Your task to perform on an android device: see tabs open on other devices in the chrome app Image 0: 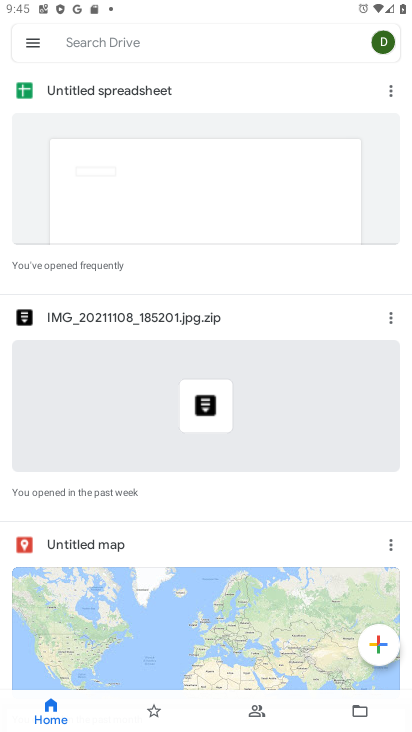
Step 0: press home button
Your task to perform on an android device: see tabs open on other devices in the chrome app Image 1: 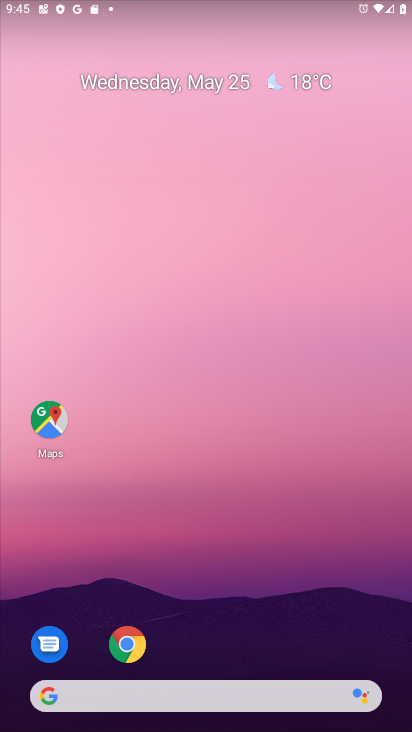
Step 1: click (128, 637)
Your task to perform on an android device: see tabs open on other devices in the chrome app Image 2: 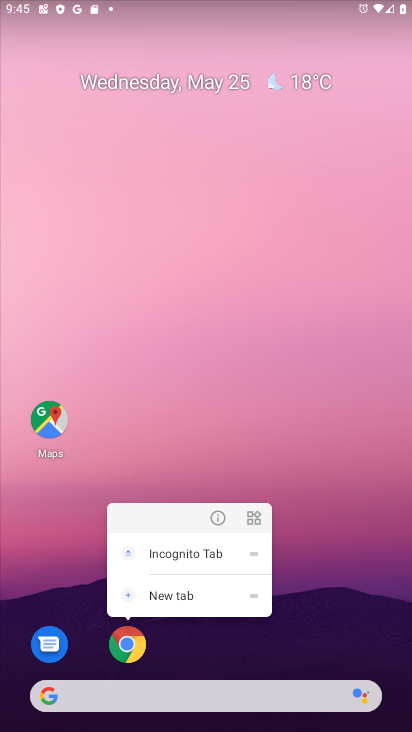
Step 2: click (128, 637)
Your task to perform on an android device: see tabs open on other devices in the chrome app Image 3: 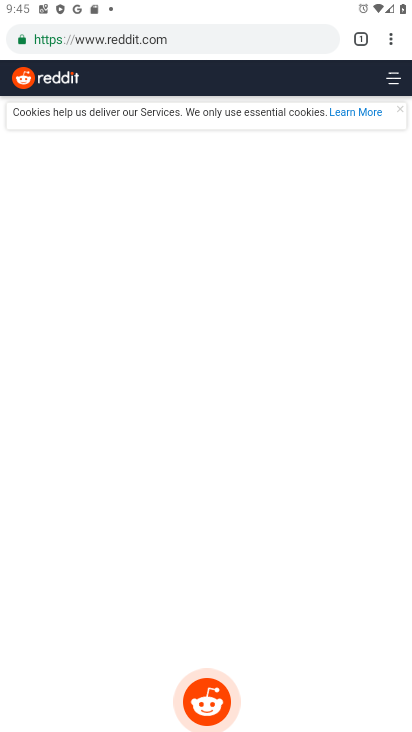
Step 3: click (391, 34)
Your task to perform on an android device: see tabs open on other devices in the chrome app Image 4: 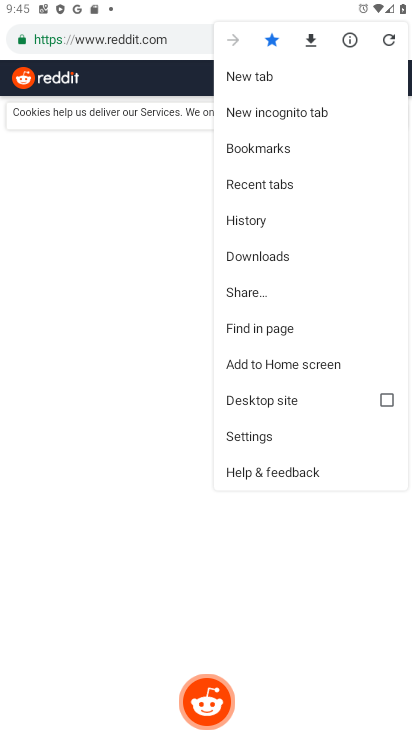
Step 4: click (288, 191)
Your task to perform on an android device: see tabs open on other devices in the chrome app Image 5: 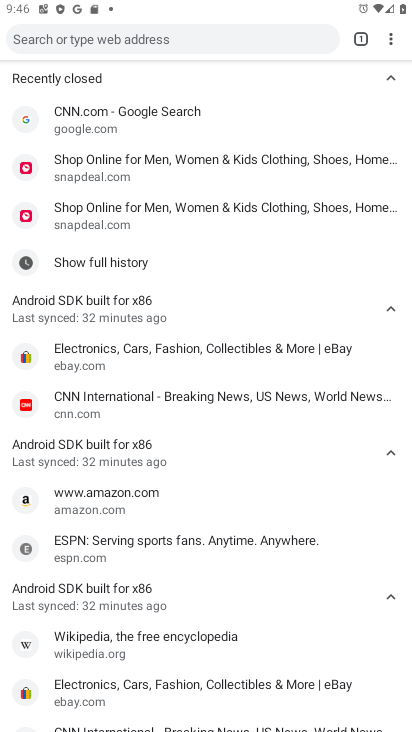
Step 5: task complete